Your task to perform on an android device: Open wifi settings Image 0: 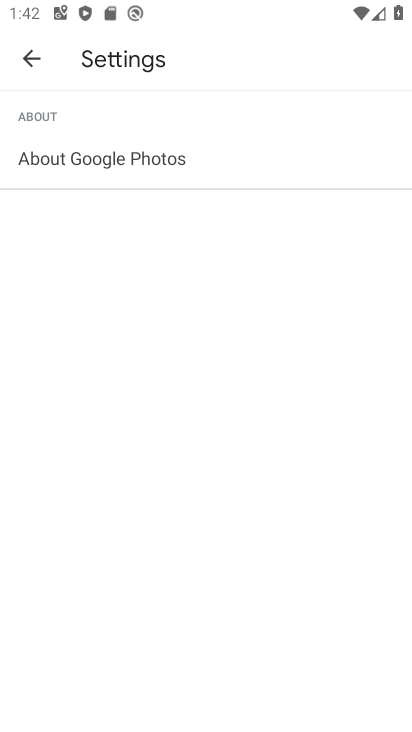
Step 0: press home button
Your task to perform on an android device: Open wifi settings Image 1: 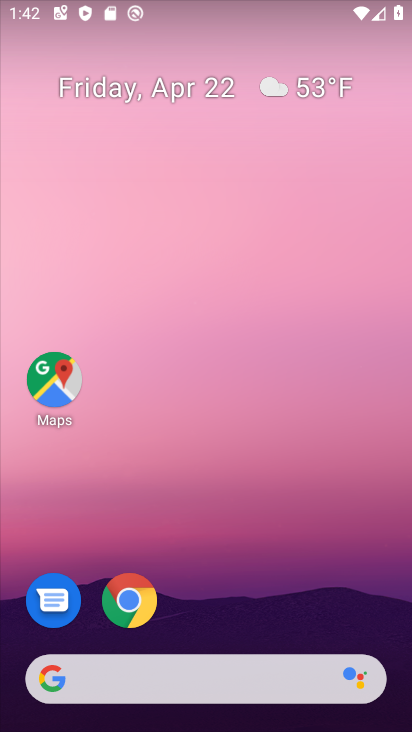
Step 1: drag from (223, 724) to (220, 122)
Your task to perform on an android device: Open wifi settings Image 2: 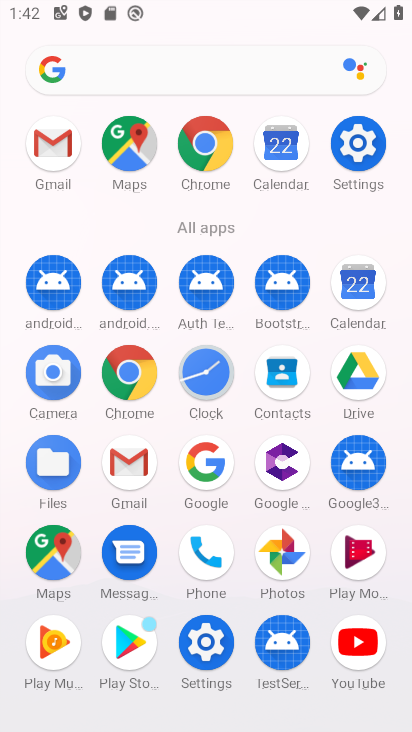
Step 2: click (355, 141)
Your task to perform on an android device: Open wifi settings Image 3: 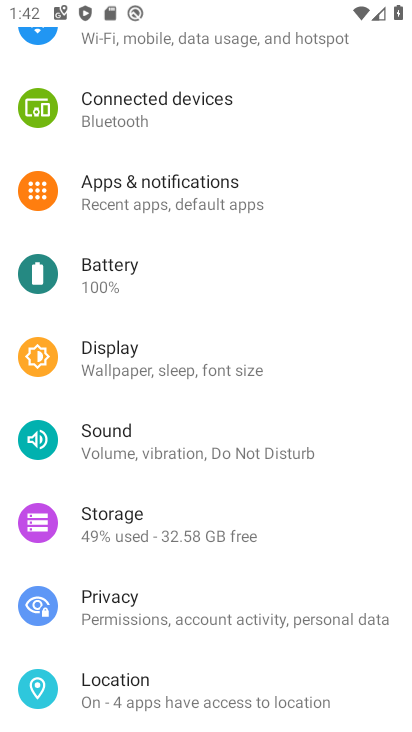
Step 3: drag from (230, 150) to (231, 594)
Your task to perform on an android device: Open wifi settings Image 4: 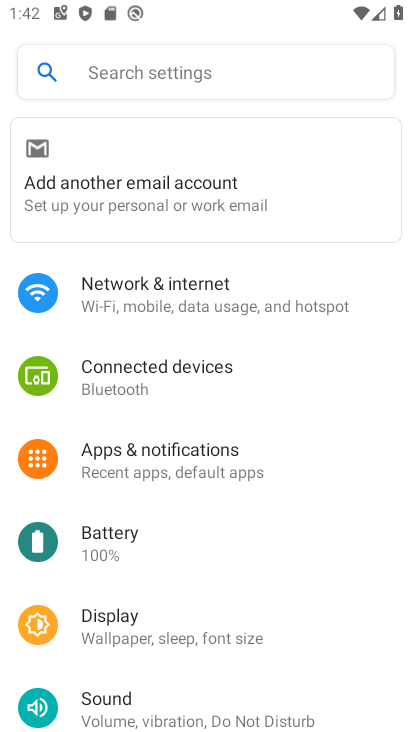
Step 4: click (136, 294)
Your task to perform on an android device: Open wifi settings Image 5: 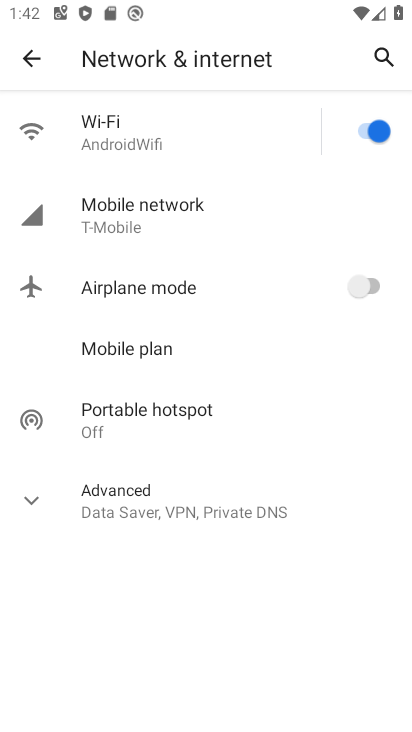
Step 5: click (117, 137)
Your task to perform on an android device: Open wifi settings Image 6: 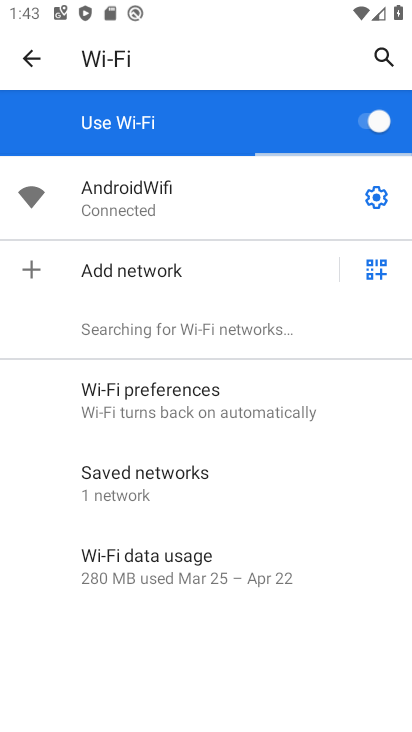
Step 6: task complete